Your task to perform on an android device: Do I have any events tomorrow? Image 0: 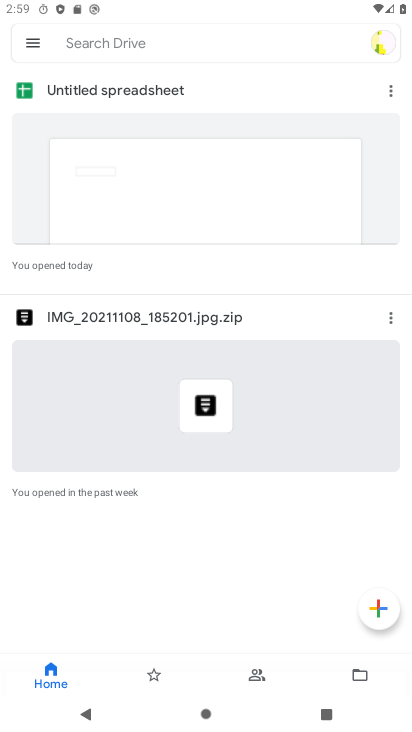
Step 0: press home button
Your task to perform on an android device: Do I have any events tomorrow? Image 1: 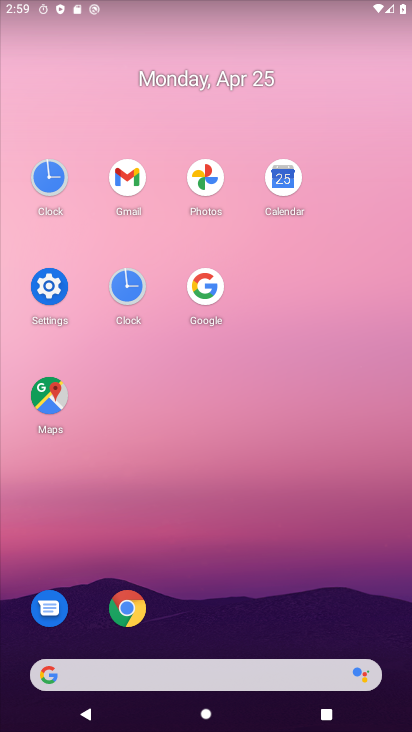
Step 1: click (270, 166)
Your task to perform on an android device: Do I have any events tomorrow? Image 2: 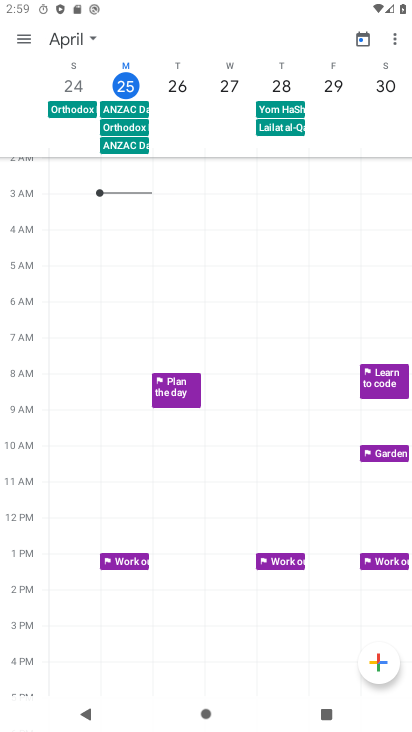
Step 2: click (130, 78)
Your task to perform on an android device: Do I have any events tomorrow? Image 3: 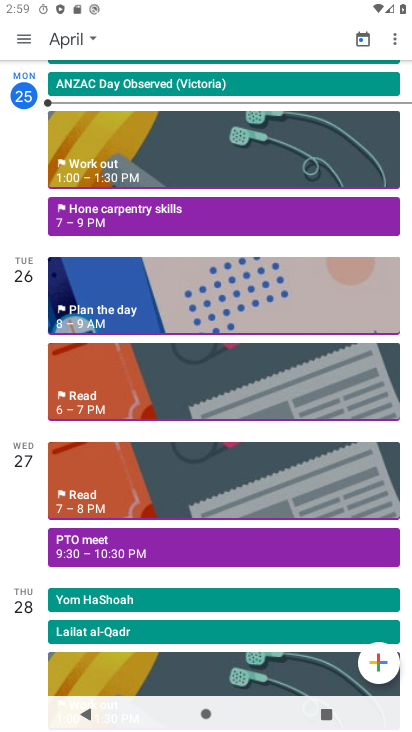
Step 3: task complete